Your task to perform on an android device: turn on priority inbox in the gmail app Image 0: 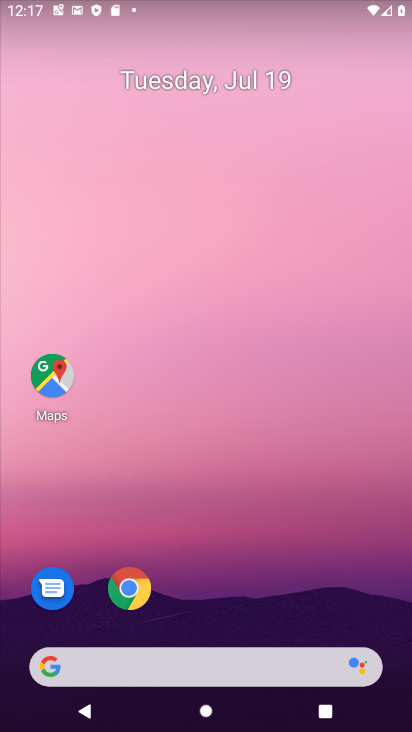
Step 0: drag from (379, 605) to (185, 77)
Your task to perform on an android device: turn on priority inbox in the gmail app Image 1: 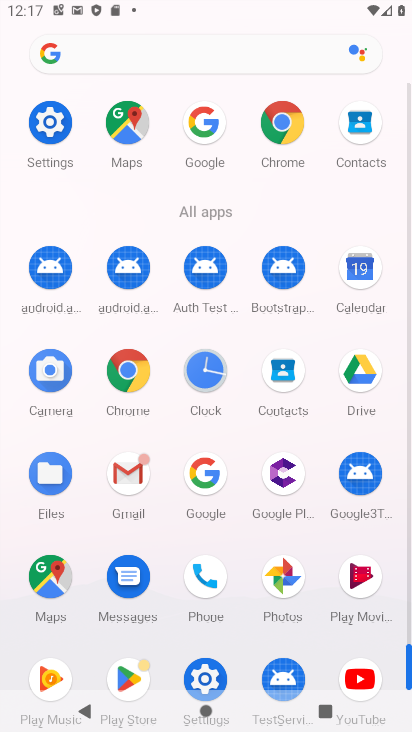
Step 1: click (135, 476)
Your task to perform on an android device: turn on priority inbox in the gmail app Image 2: 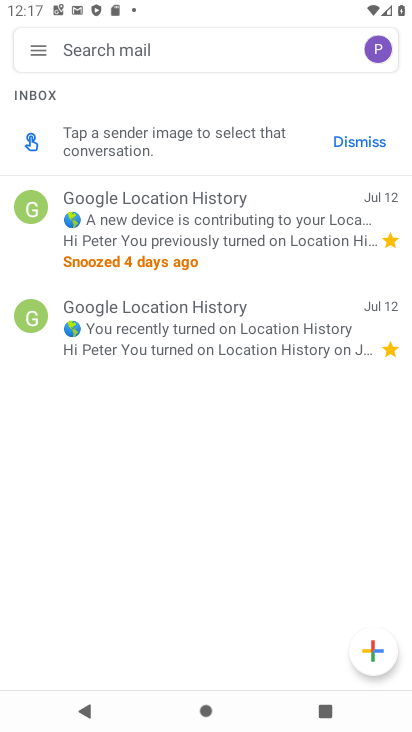
Step 2: click (46, 52)
Your task to perform on an android device: turn on priority inbox in the gmail app Image 3: 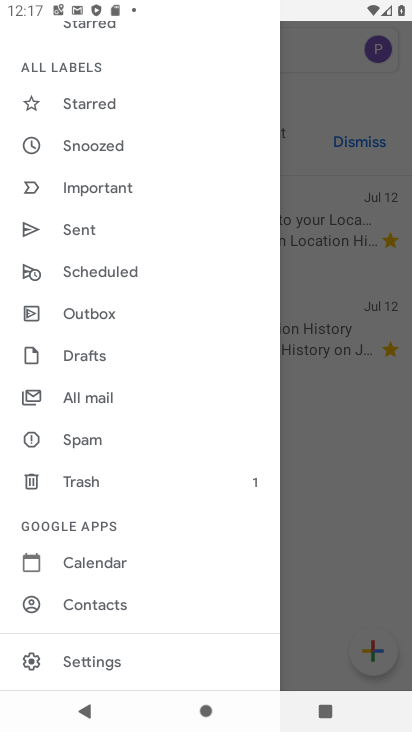
Step 3: click (116, 660)
Your task to perform on an android device: turn on priority inbox in the gmail app Image 4: 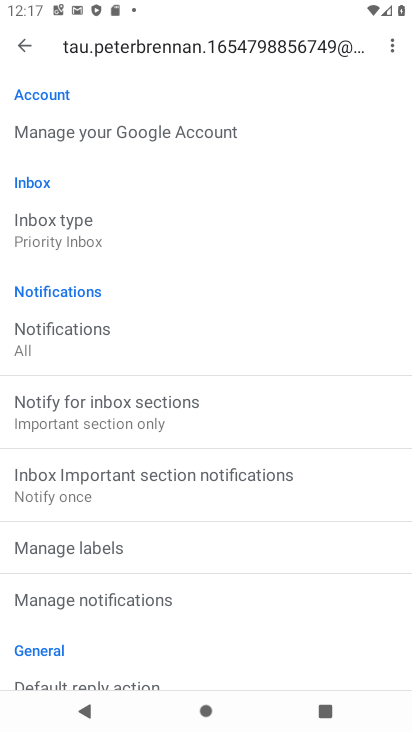
Step 4: task complete